Your task to perform on an android device: turn pop-ups on in chrome Image 0: 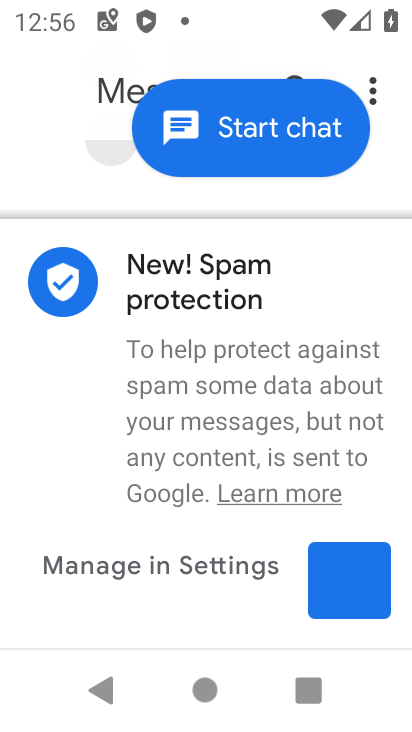
Step 0: press home button
Your task to perform on an android device: turn pop-ups on in chrome Image 1: 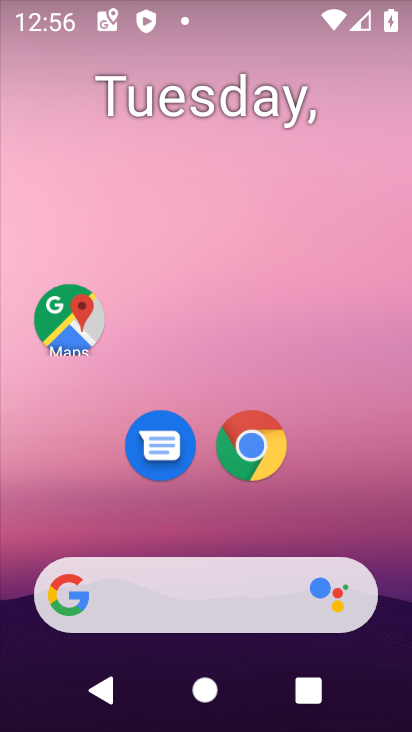
Step 1: drag from (344, 529) to (411, 10)
Your task to perform on an android device: turn pop-ups on in chrome Image 2: 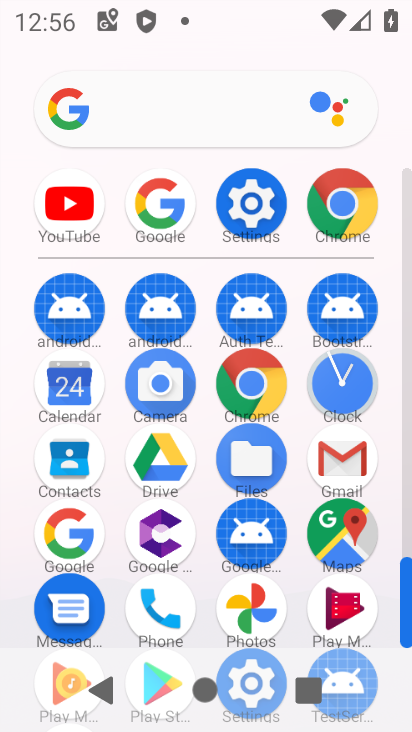
Step 2: click (359, 193)
Your task to perform on an android device: turn pop-ups on in chrome Image 3: 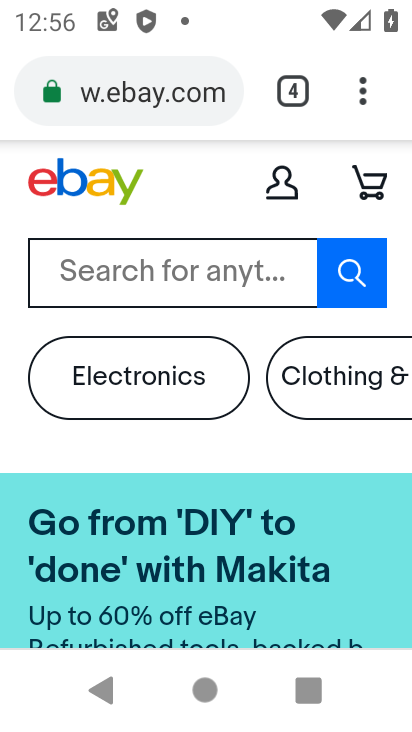
Step 3: drag from (360, 100) to (111, 436)
Your task to perform on an android device: turn pop-ups on in chrome Image 4: 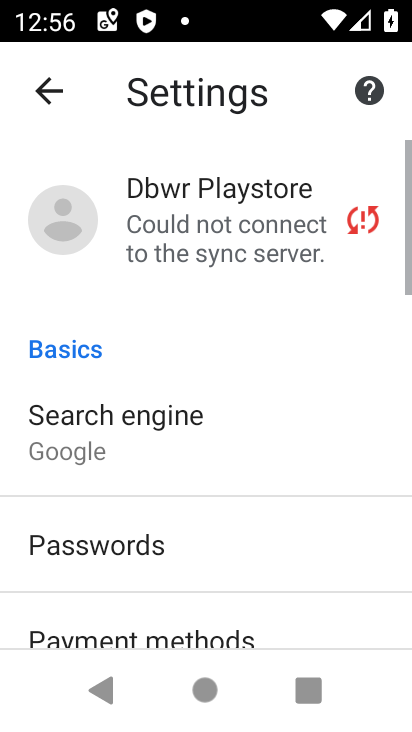
Step 4: drag from (178, 557) to (235, 95)
Your task to perform on an android device: turn pop-ups on in chrome Image 5: 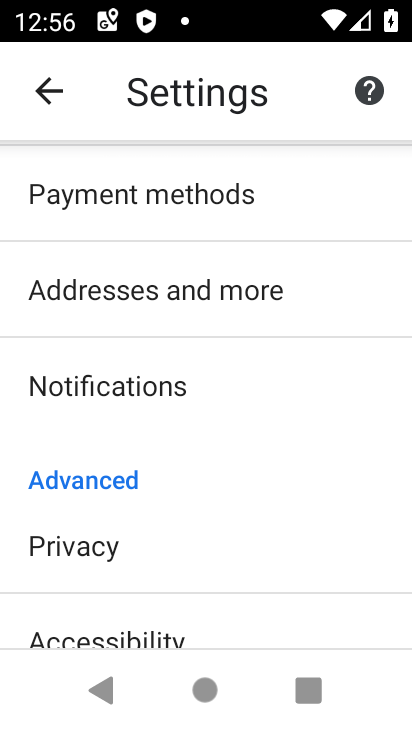
Step 5: drag from (244, 540) to (311, 200)
Your task to perform on an android device: turn pop-ups on in chrome Image 6: 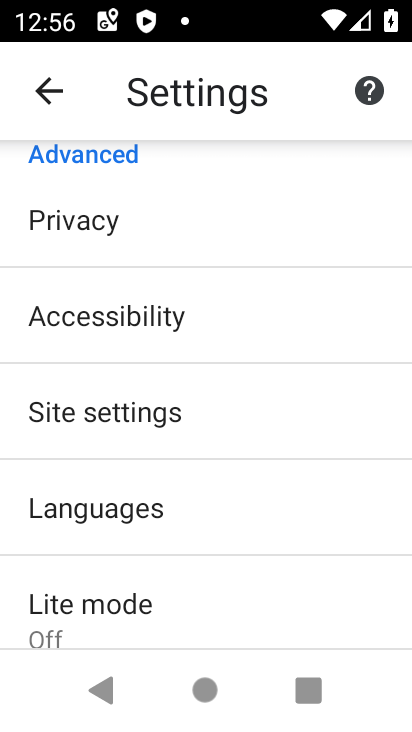
Step 6: click (249, 421)
Your task to perform on an android device: turn pop-ups on in chrome Image 7: 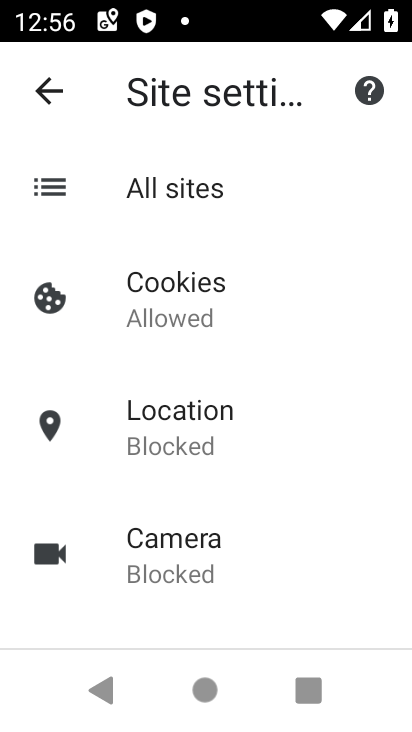
Step 7: drag from (239, 455) to (252, 188)
Your task to perform on an android device: turn pop-ups on in chrome Image 8: 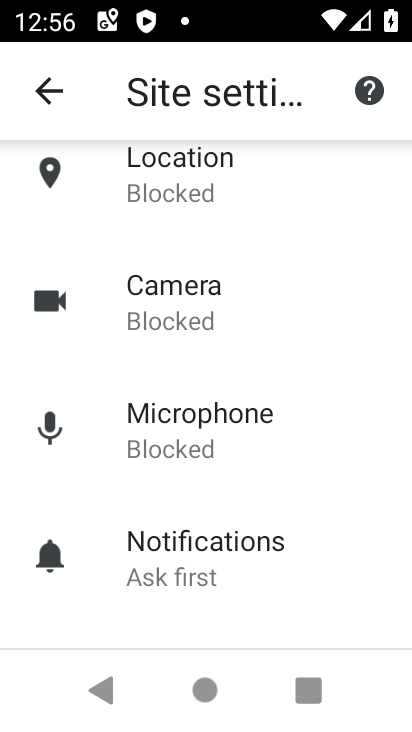
Step 8: drag from (203, 549) to (258, 132)
Your task to perform on an android device: turn pop-ups on in chrome Image 9: 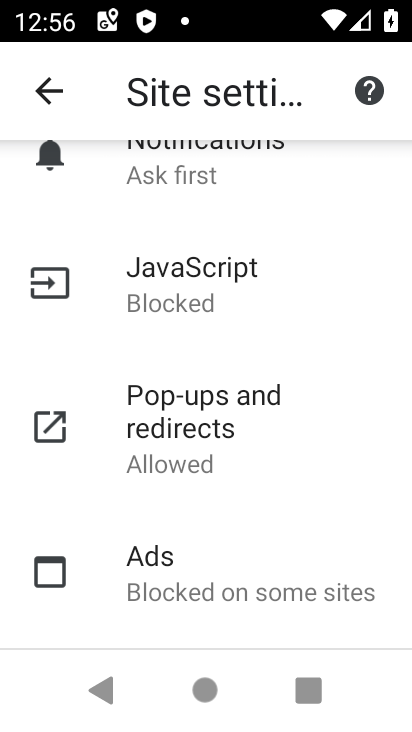
Step 9: click (193, 412)
Your task to perform on an android device: turn pop-ups on in chrome Image 10: 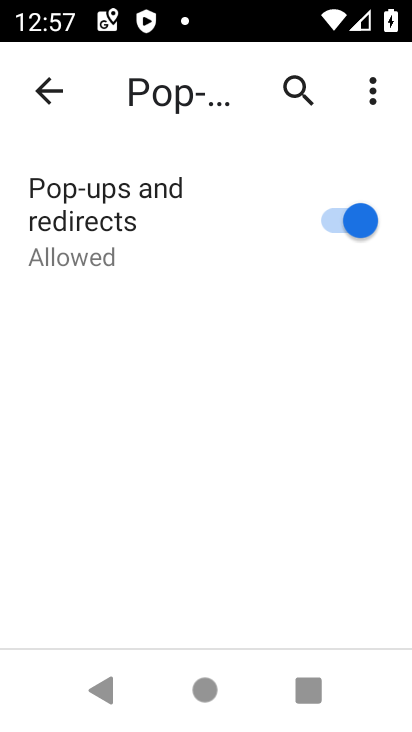
Step 10: task complete